Your task to perform on an android device: add a contact in the contacts app Image 0: 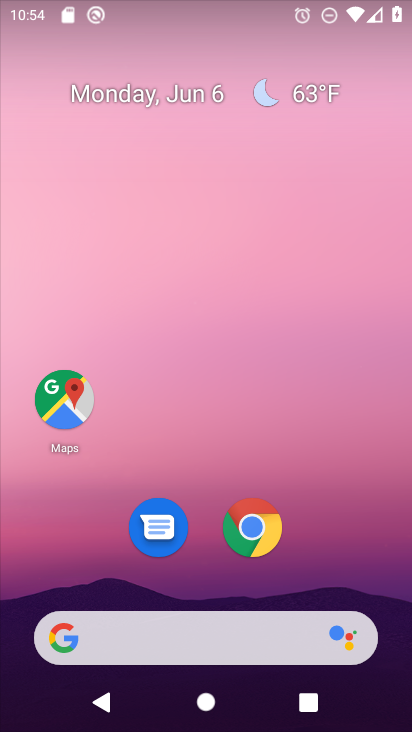
Step 0: drag from (343, 576) to (359, 252)
Your task to perform on an android device: add a contact in the contacts app Image 1: 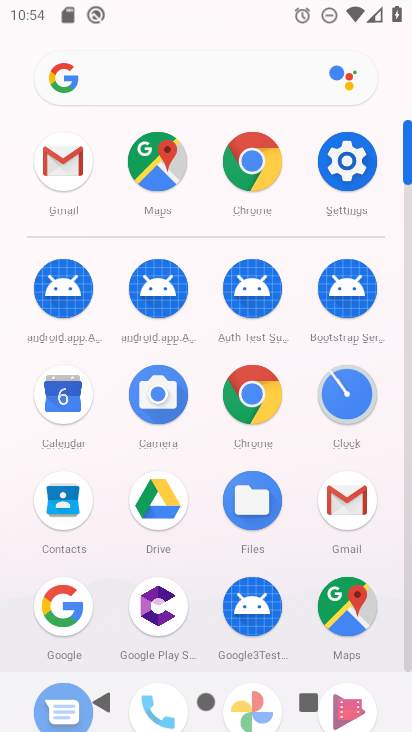
Step 1: click (75, 512)
Your task to perform on an android device: add a contact in the contacts app Image 2: 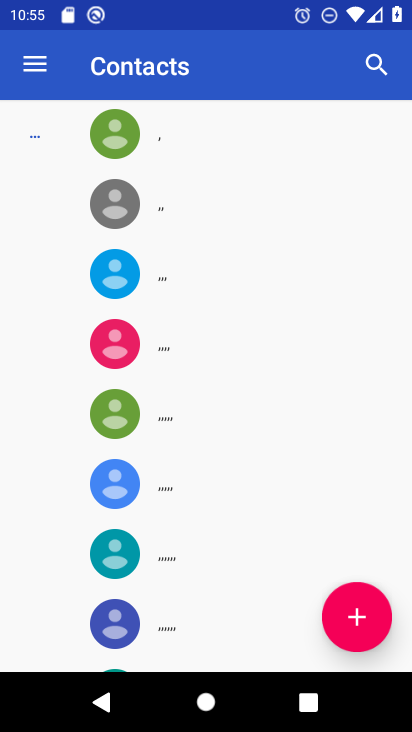
Step 2: click (358, 601)
Your task to perform on an android device: add a contact in the contacts app Image 3: 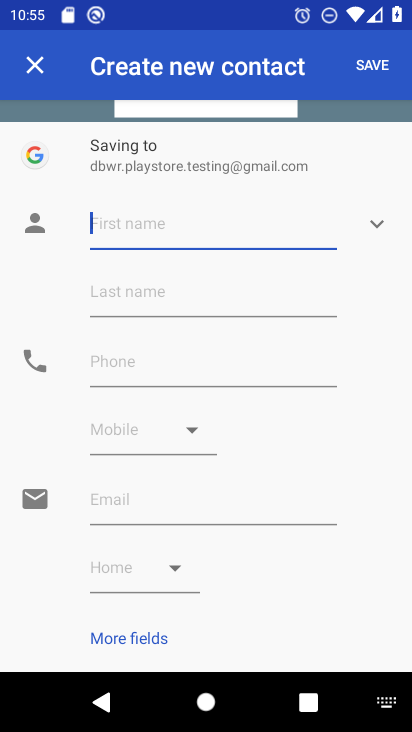
Step 3: click (222, 238)
Your task to perform on an android device: add a contact in the contacts app Image 4: 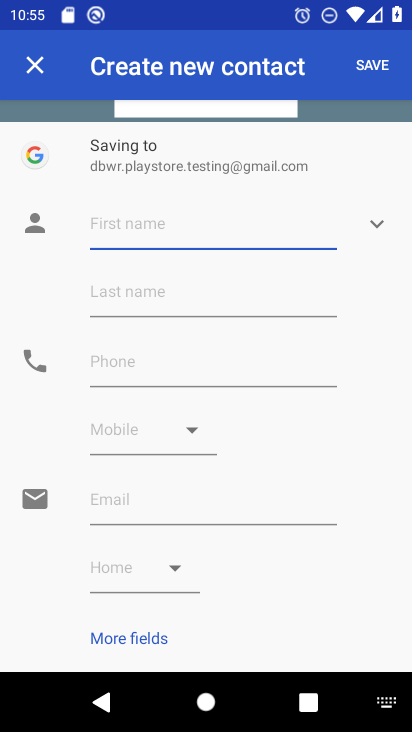
Step 4: type "poooooo"
Your task to perform on an android device: add a contact in the contacts app Image 5: 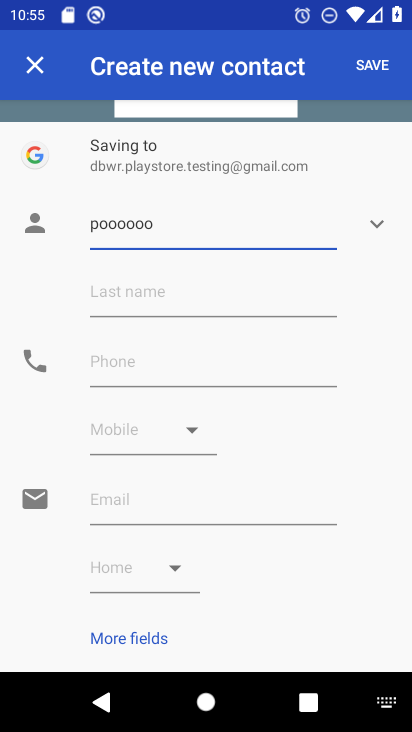
Step 5: click (188, 384)
Your task to perform on an android device: add a contact in the contacts app Image 6: 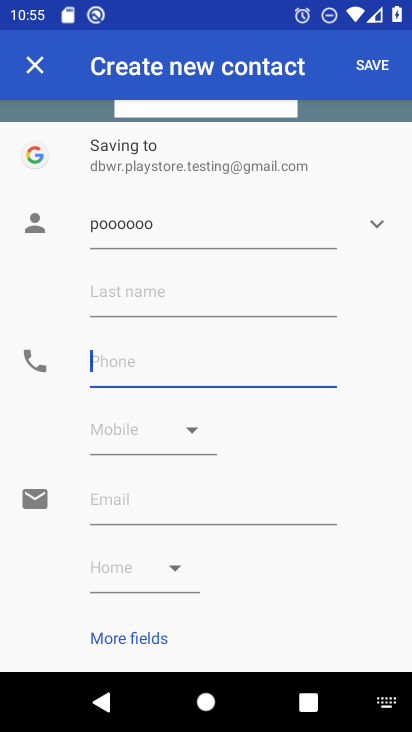
Step 6: type "123456789"
Your task to perform on an android device: add a contact in the contacts app Image 7: 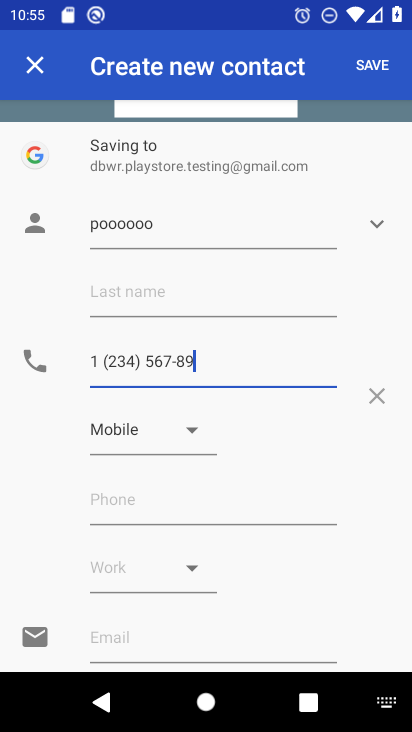
Step 7: click (362, 69)
Your task to perform on an android device: add a contact in the contacts app Image 8: 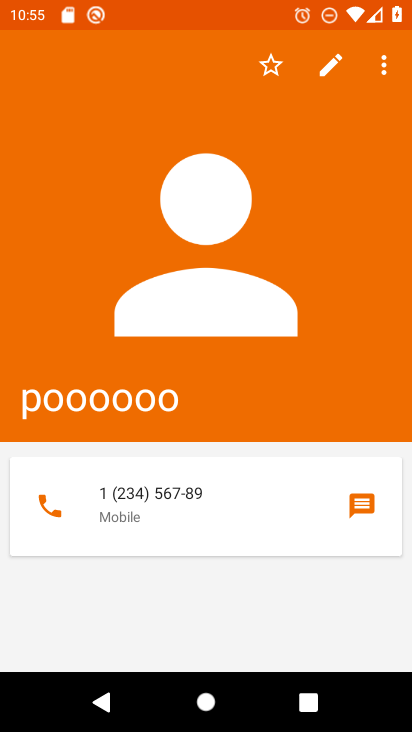
Step 8: press home button
Your task to perform on an android device: add a contact in the contacts app Image 9: 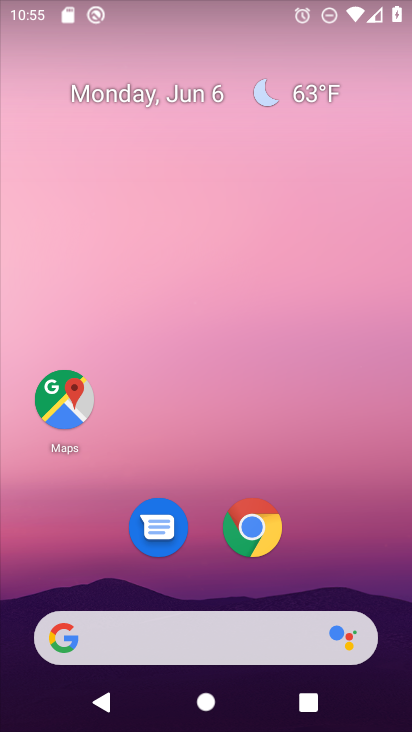
Step 9: drag from (337, 548) to (382, 68)
Your task to perform on an android device: add a contact in the contacts app Image 10: 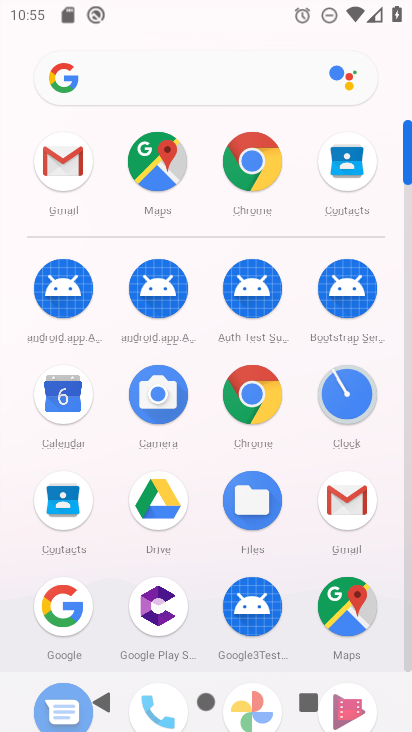
Step 10: click (73, 522)
Your task to perform on an android device: add a contact in the contacts app Image 11: 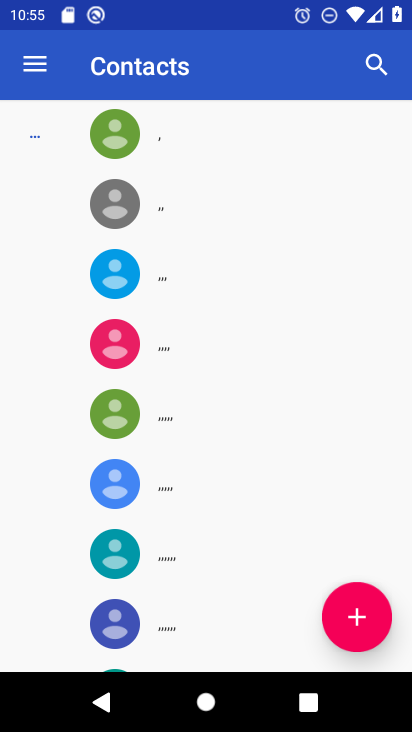
Step 11: click (340, 613)
Your task to perform on an android device: add a contact in the contacts app Image 12: 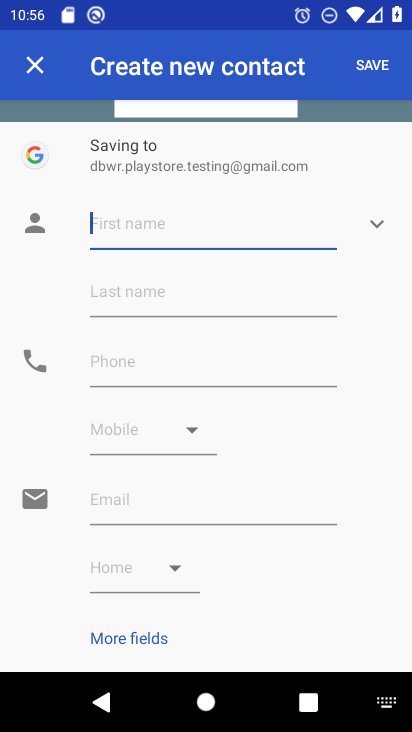
Step 12: click (216, 231)
Your task to perform on an android device: add a contact in the contacts app Image 13: 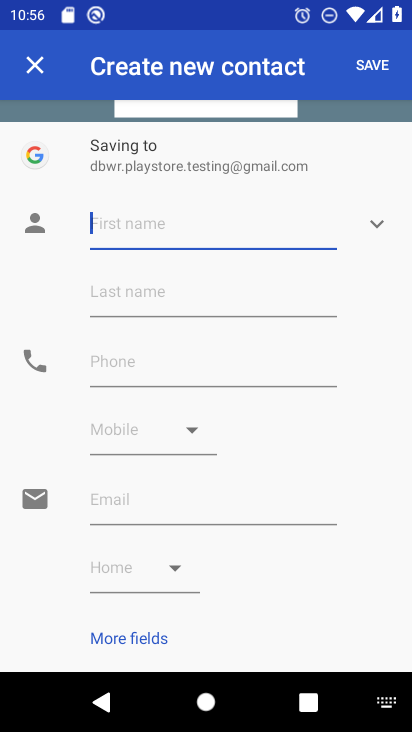
Step 13: type "poooooooo"
Your task to perform on an android device: add a contact in the contacts app Image 14: 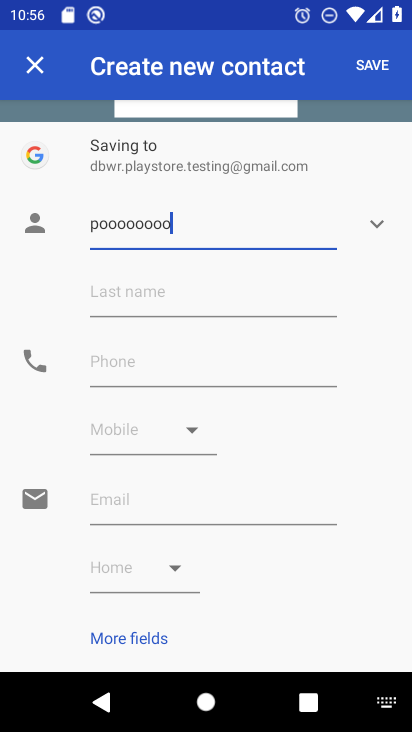
Step 14: click (241, 372)
Your task to perform on an android device: add a contact in the contacts app Image 15: 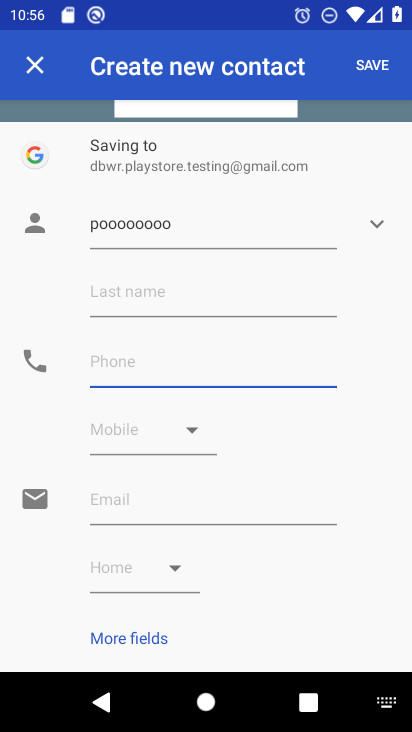
Step 15: type "12343445666"
Your task to perform on an android device: add a contact in the contacts app Image 16: 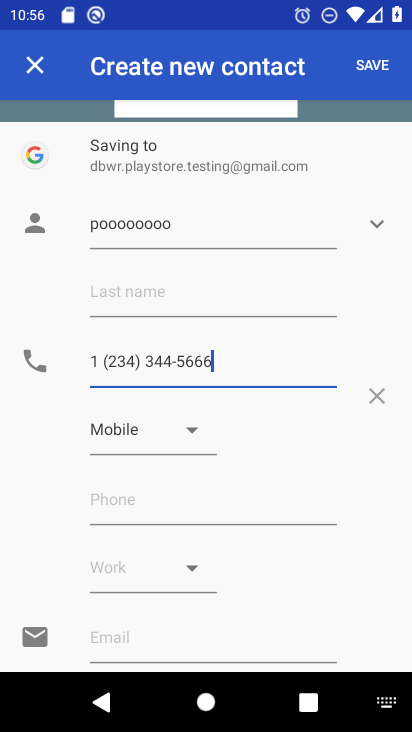
Step 16: click (372, 84)
Your task to perform on an android device: add a contact in the contacts app Image 17: 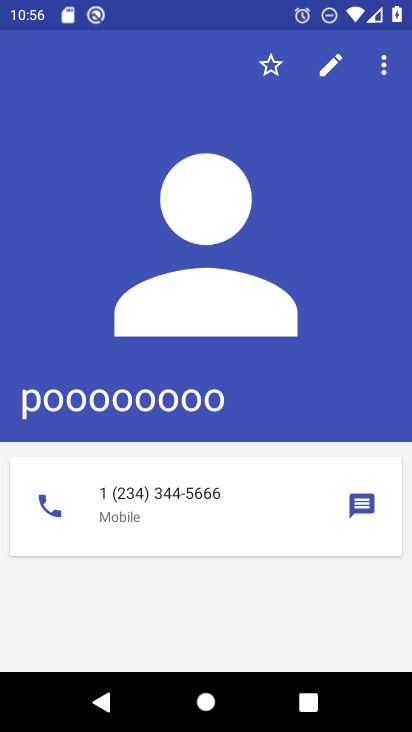
Step 17: task complete